Your task to perform on an android device: open a bookmark in the chrome app Image 0: 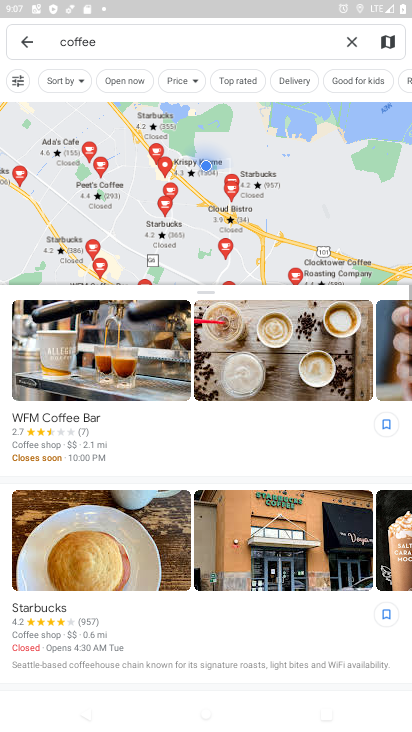
Step 0: drag from (236, 727) to (230, 47)
Your task to perform on an android device: open a bookmark in the chrome app Image 1: 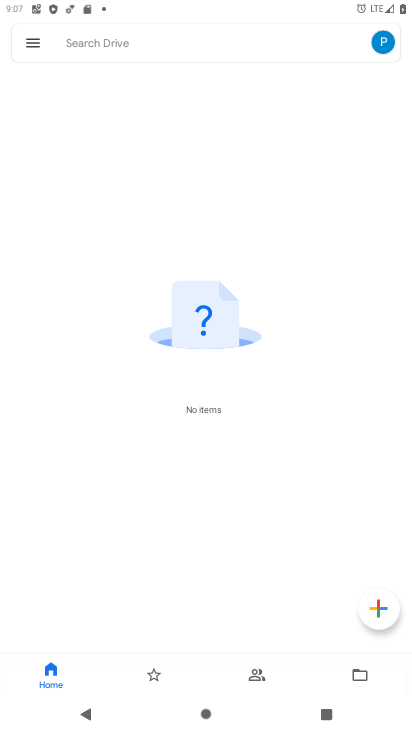
Step 1: press home button
Your task to perform on an android device: open a bookmark in the chrome app Image 2: 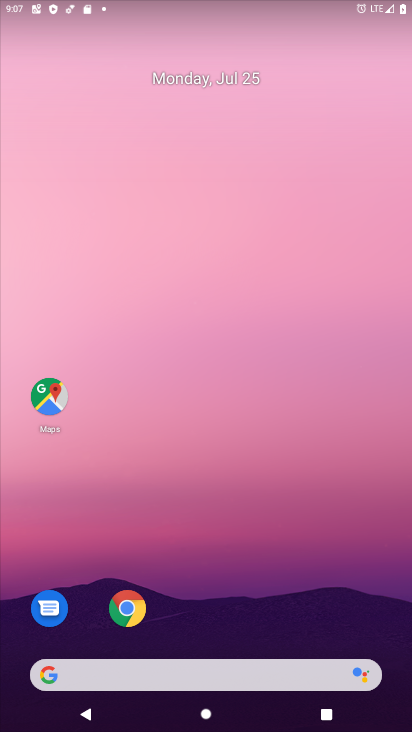
Step 2: click (125, 609)
Your task to perform on an android device: open a bookmark in the chrome app Image 3: 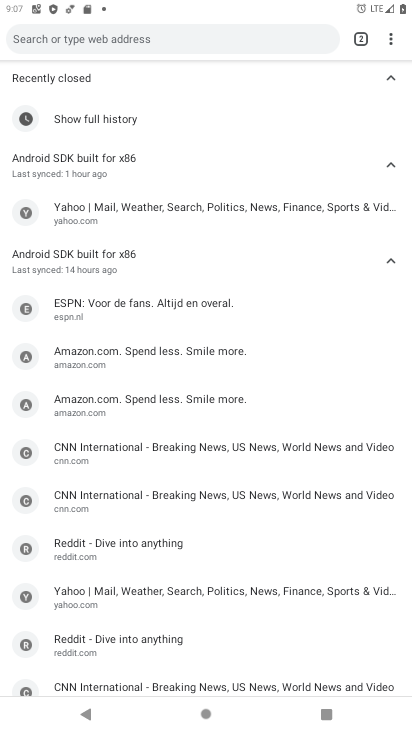
Step 3: click (391, 41)
Your task to perform on an android device: open a bookmark in the chrome app Image 4: 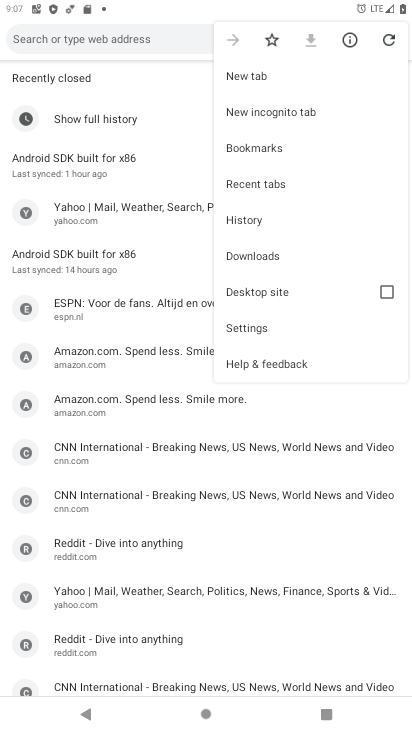
Step 4: click (251, 147)
Your task to perform on an android device: open a bookmark in the chrome app Image 5: 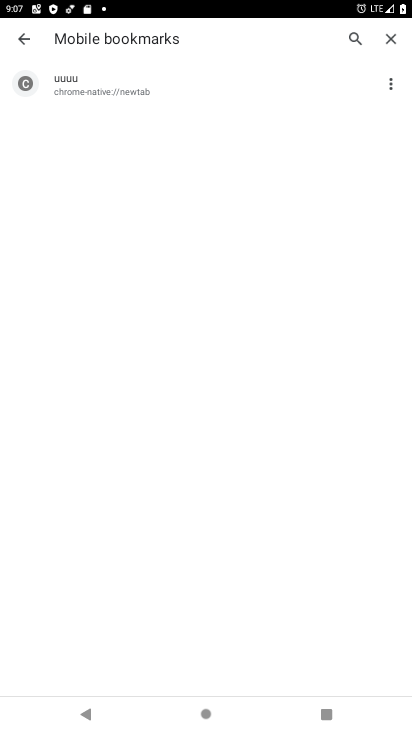
Step 5: click (134, 95)
Your task to perform on an android device: open a bookmark in the chrome app Image 6: 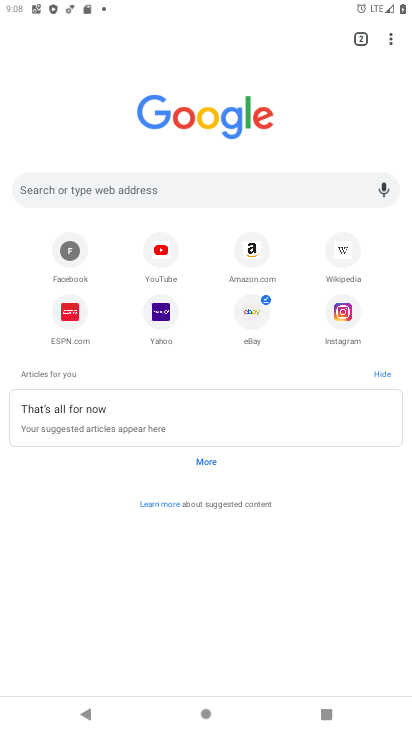
Step 6: task complete